Your task to perform on an android device: Open location settings Image 0: 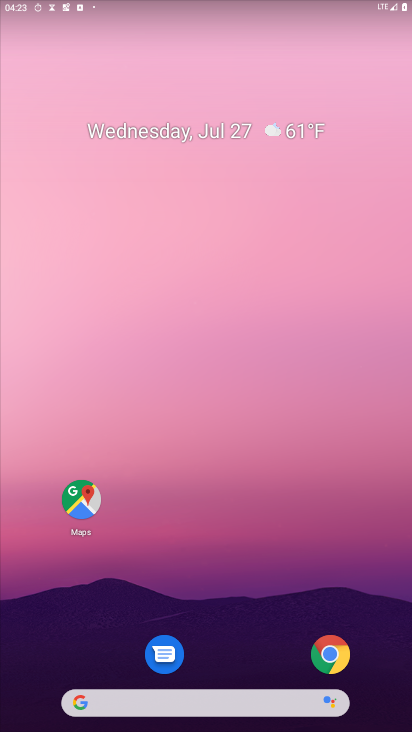
Step 0: press home button
Your task to perform on an android device: Open location settings Image 1: 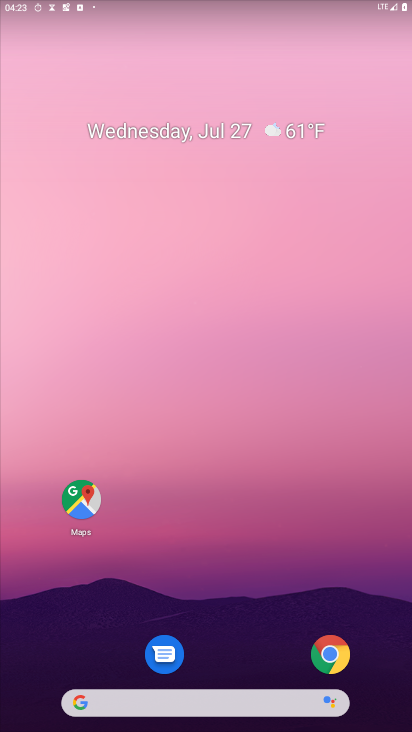
Step 1: drag from (296, 709) to (379, 44)
Your task to perform on an android device: Open location settings Image 2: 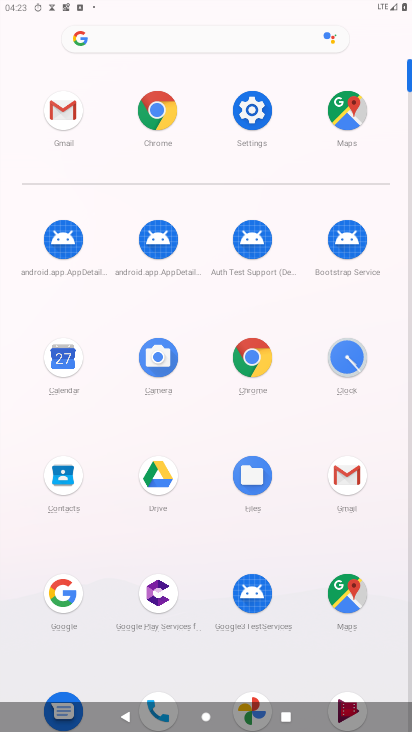
Step 2: click (255, 97)
Your task to perform on an android device: Open location settings Image 3: 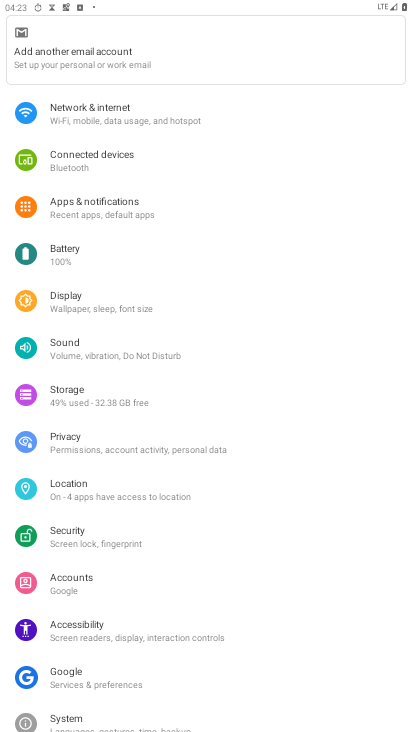
Step 3: click (122, 502)
Your task to perform on an android device: Open location settings Image 4: 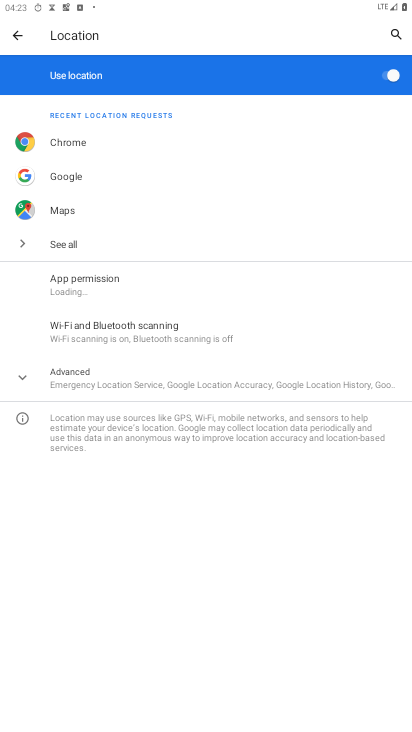
Step 4: task complete